Your task to perform on an android device: Search for a 24-inch cordless drill. Image 0: 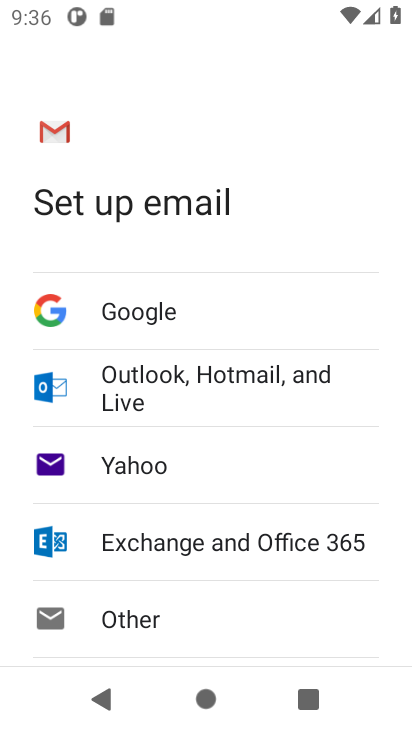
Step 0: press home button
Your task to perform on an android device: Search for a 24-inch cordless drill. Image 1: 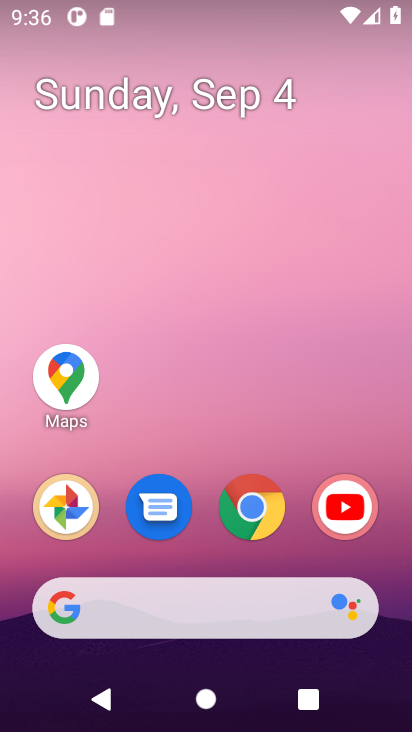
Step 1: click (256, 502)
Your task to perform on an android device: Search for a 24-inch cordless drill. Image 2: 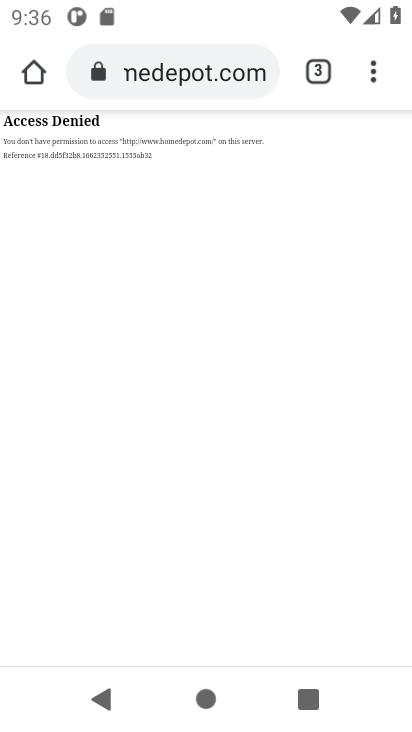
Step 2: click (188, 57)
Your task to perform on an android device: Search for a 24-inch cordless drill. Image 3: 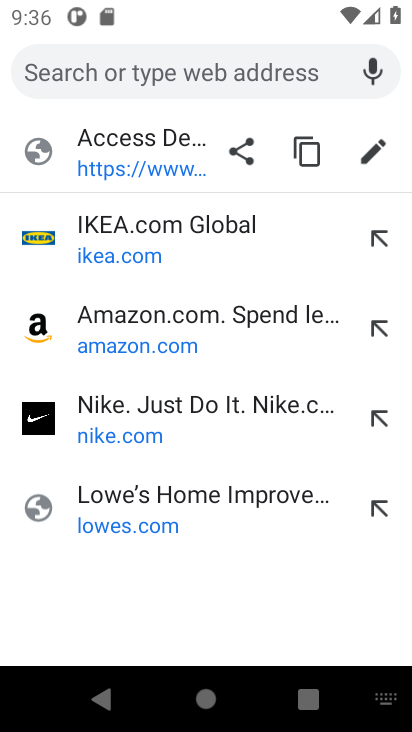
Step 3: type " 24-inch cordless drill"
Your task to perform on an android device: Search for a 24-inch cordless drill. Image 4: 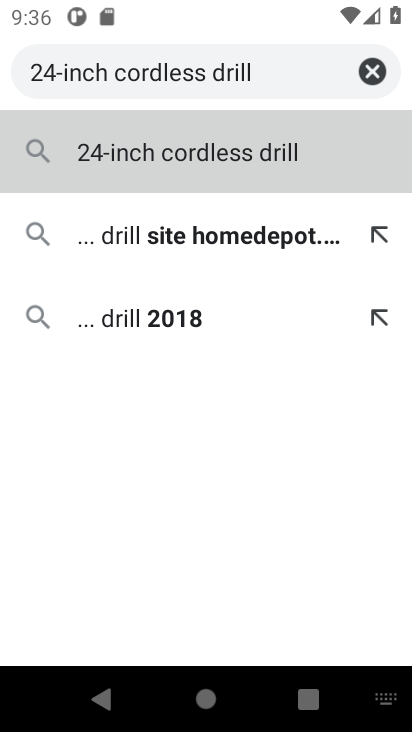
Step 4: click (126, 158)
Your task to perform on an android device: Search for a 24-inch cordless drill. Image 5: 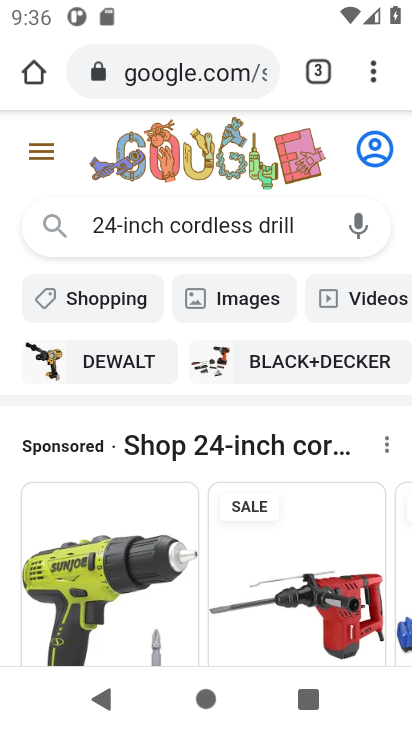
Step 5: task complete